Your task to perform on an android device: turn on the 12-hour format for clock Image 0: 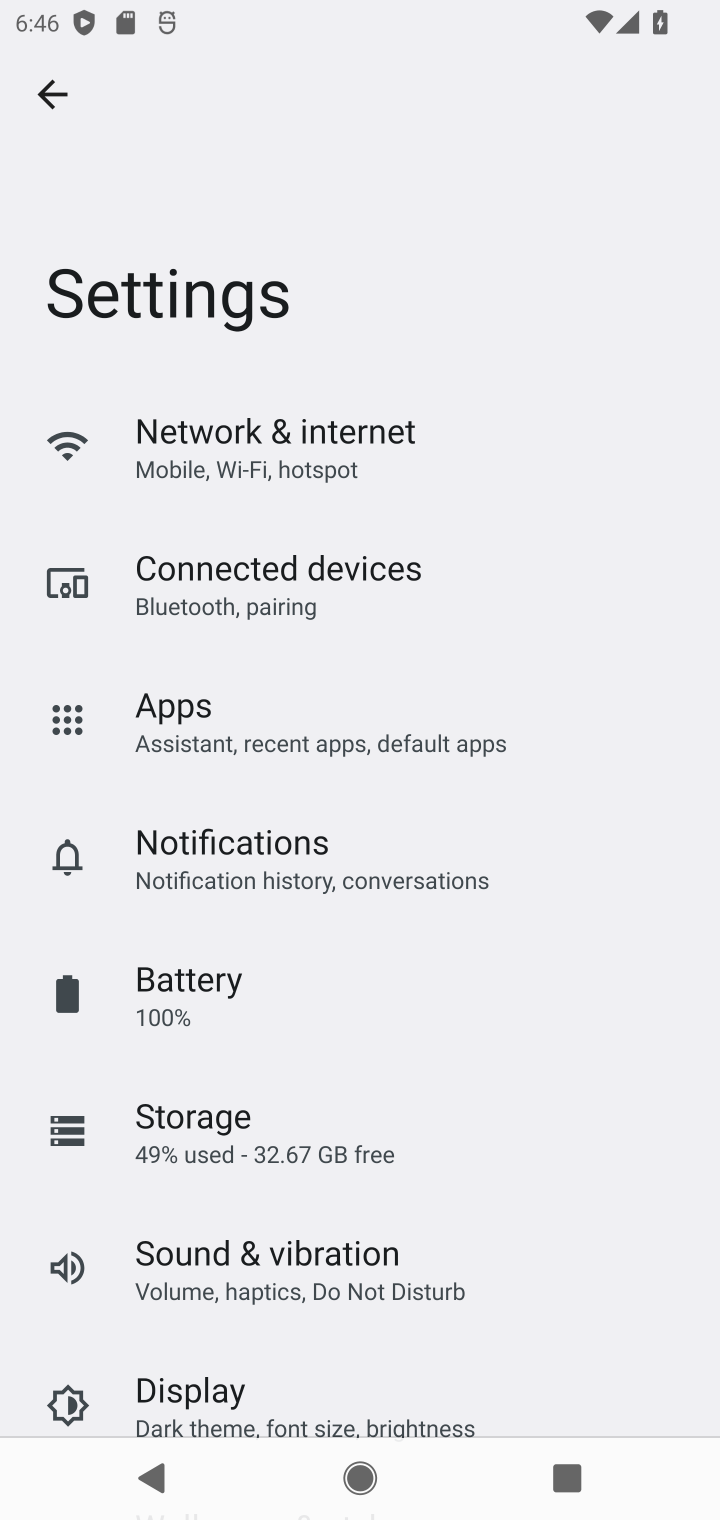
Step 0: drag from (363, 1194) to (466, 526)
Your task to perform on an android device: turn on the 12-hour format for clock Image 1: 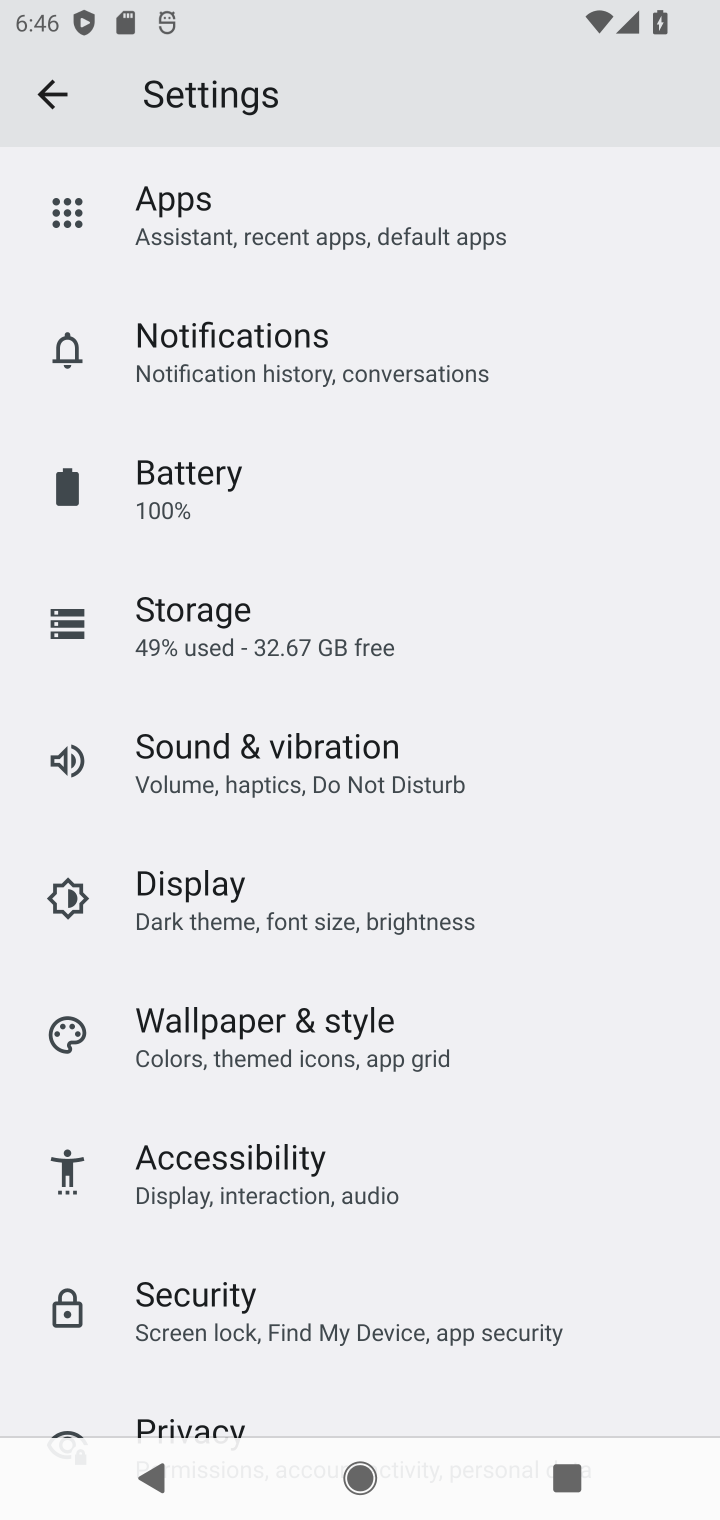
Step 1: drag from (274, 1296) to (394, 521)
Your task to perform on an android device: turn on the 12-hour format for clock Image 2: 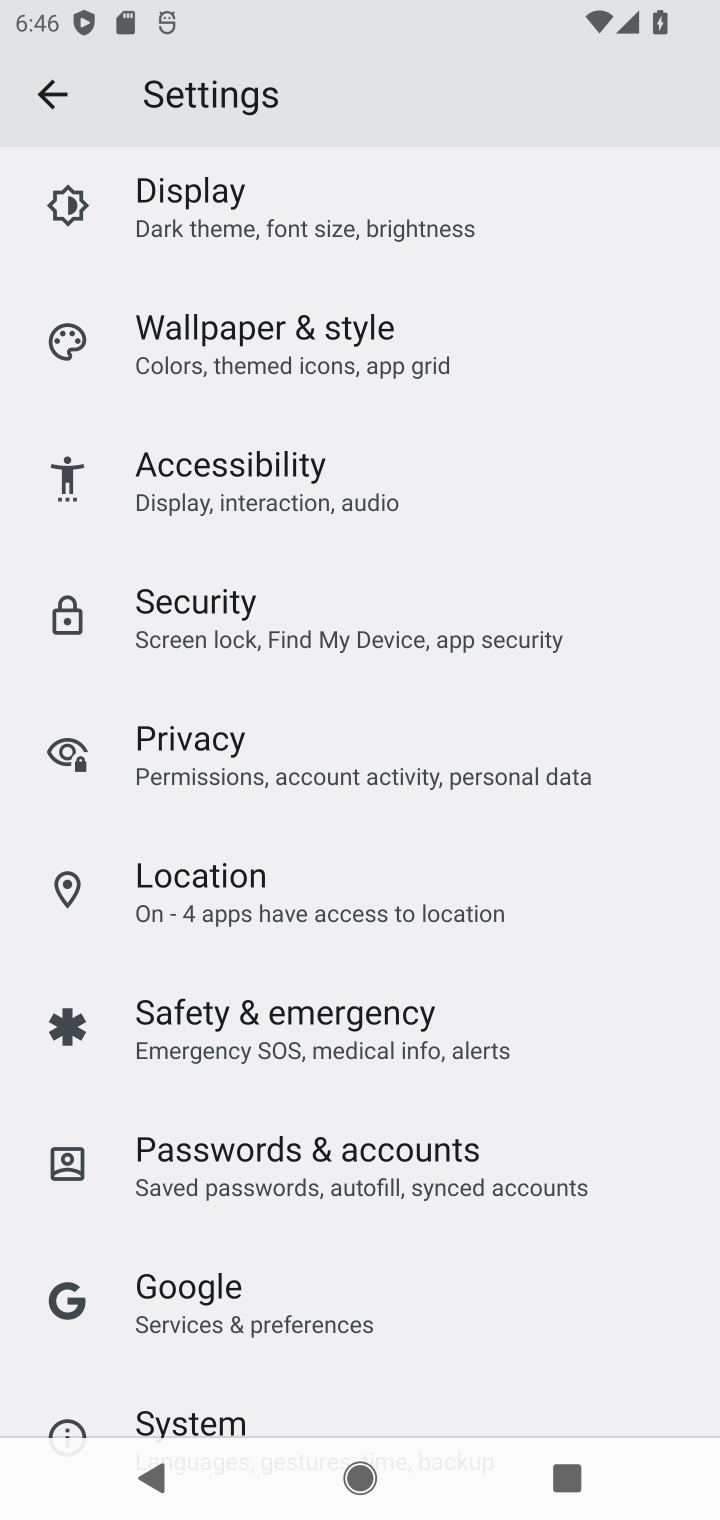
Step 2: drag from (246, 1175) to (392, 466)
Your task to perform on an android device: turn on the 12-hour format for clock Image 3: 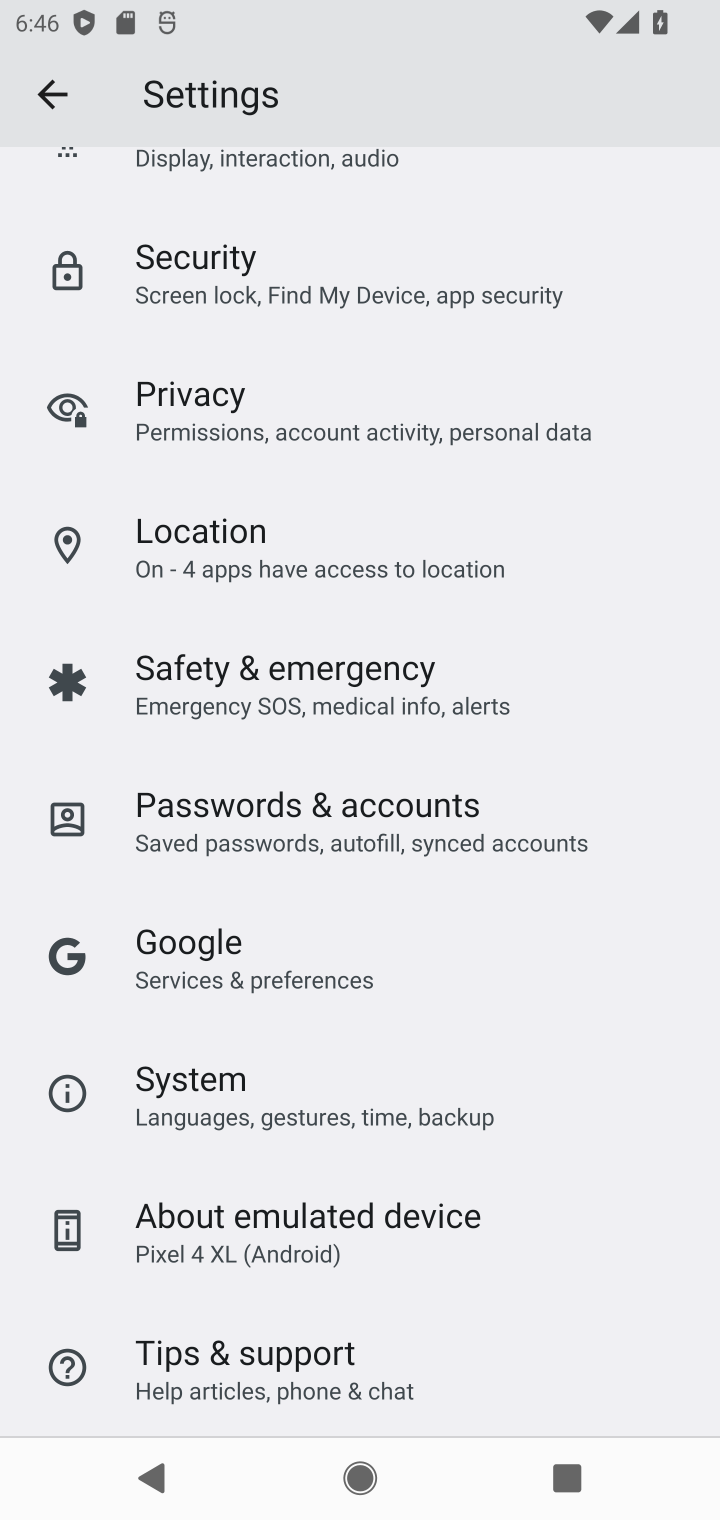
Step 3: click (231, 1111)
Your task to perform on an android device: turn on the 12-hour format for clock Image 4: 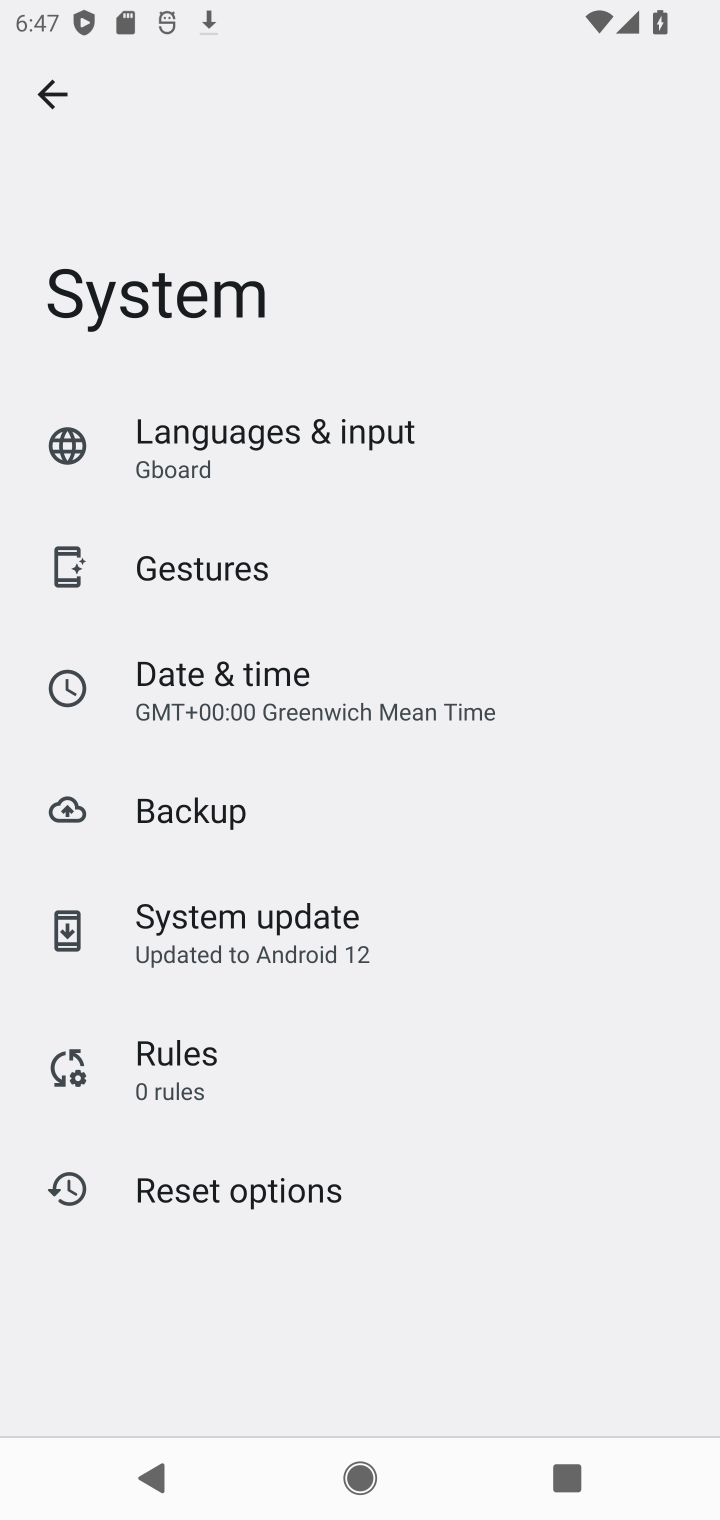
Step 4: click (279, 690)
Your task to perform on an android device: turn on the 12-hour format for clock Image 5: 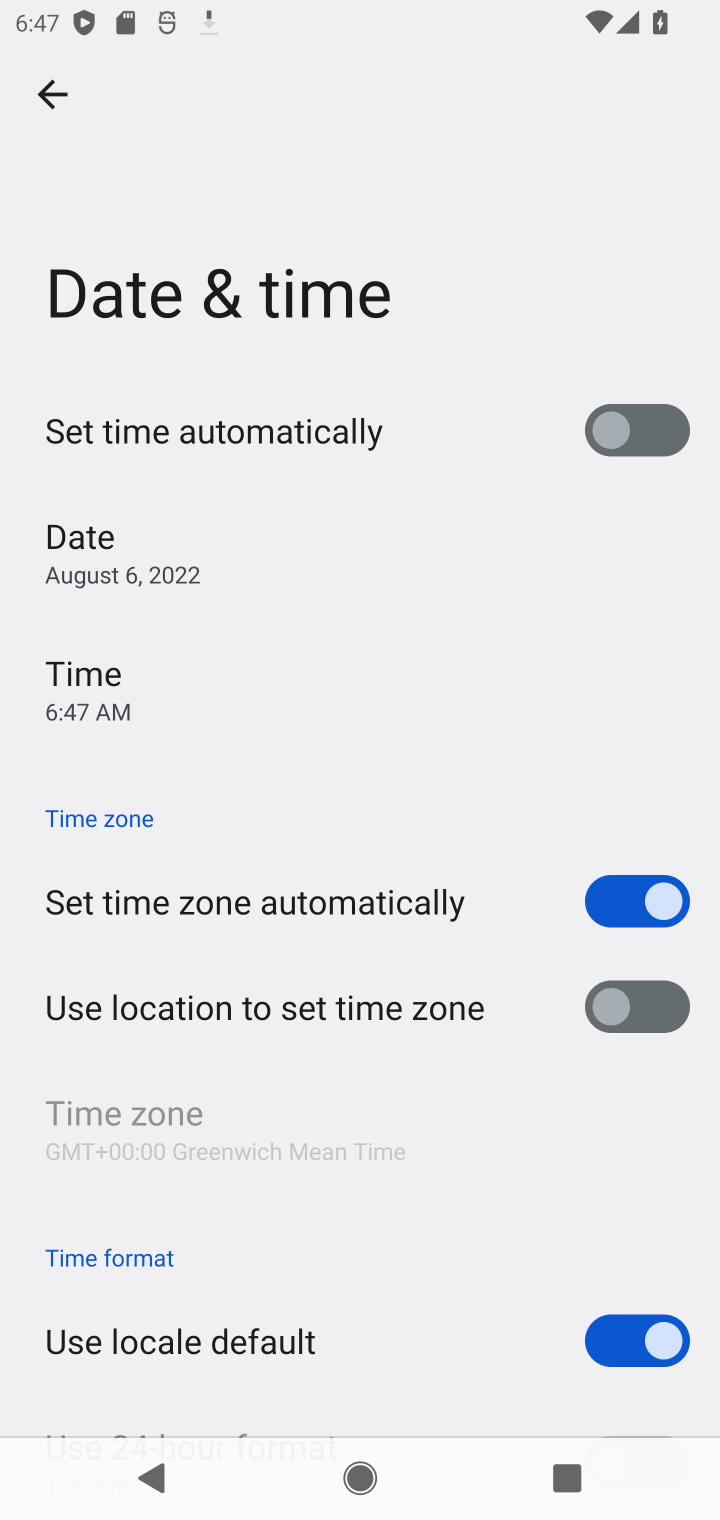
Step 5: task complete